Your task to perform on an android device: Open the stopwatch Image 0: 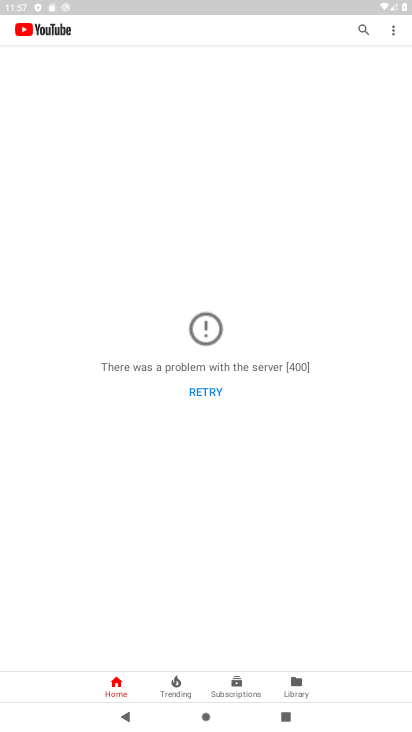
Step 0: press home button
Your task to perform on an android device: Open the stopwatch Image 1: 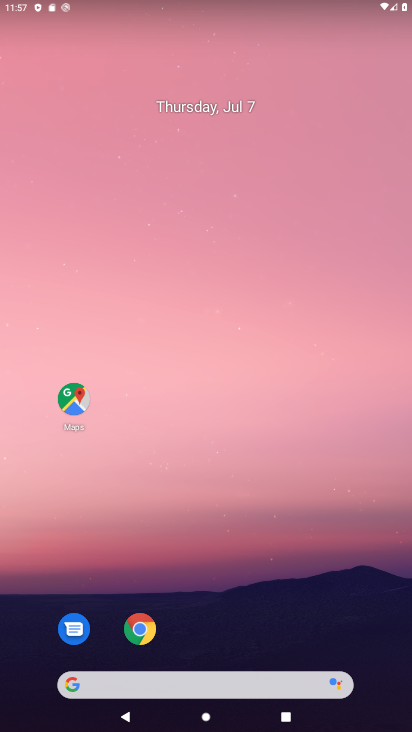
Step 1: drag from (310, 549) to (301, 291)
Your task to perform on an android device: Open the stopwatch Image 2: 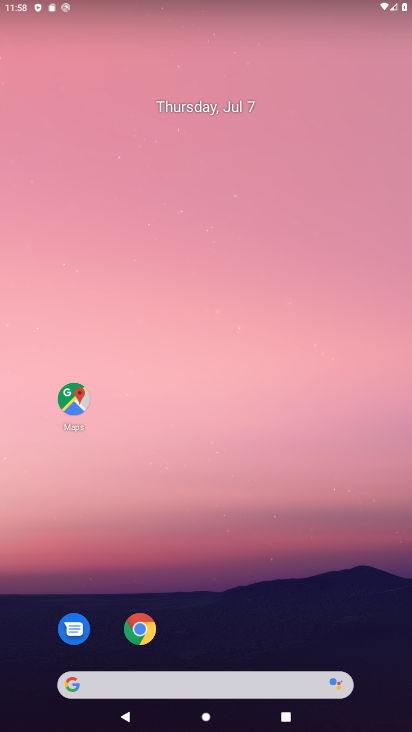
Step 2: drag from (323, 607) to (314, 194)
Your task to perform on an android device: Open the stopwatch Image 3: 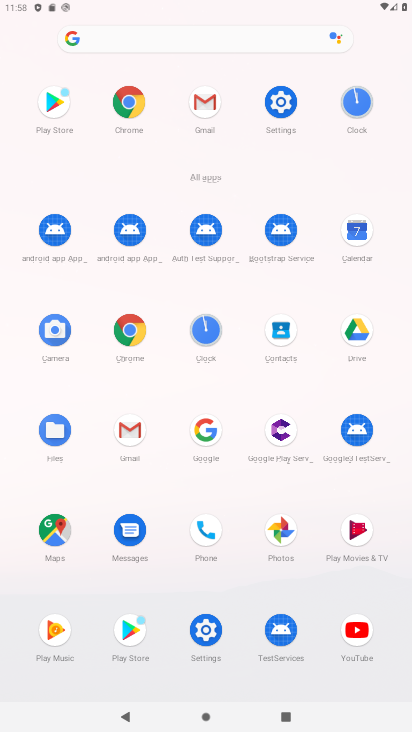
Step 3: click (350, 108)
Your task to perform on an android device: Open the stopwatch Image 4: 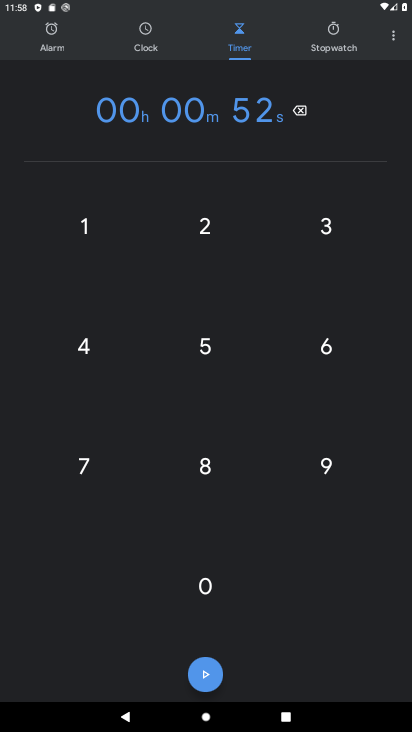
Step 4: click (334, 44)
Your task to perform on an android device: Open the stopwatch Image 5: 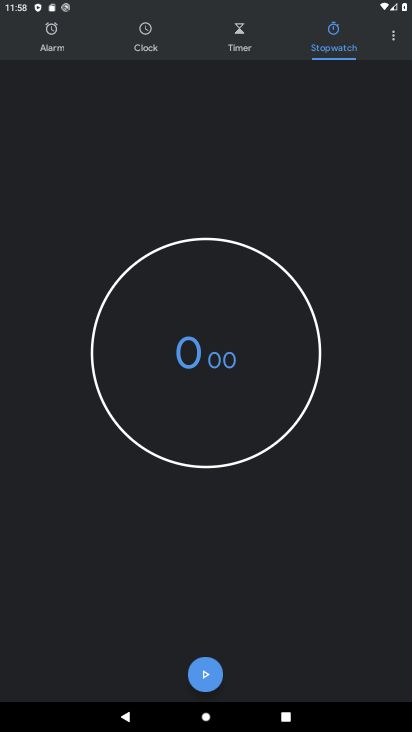
Step 5: task complete